Your task to perform on an android device: Go to privacy settings Image 0: 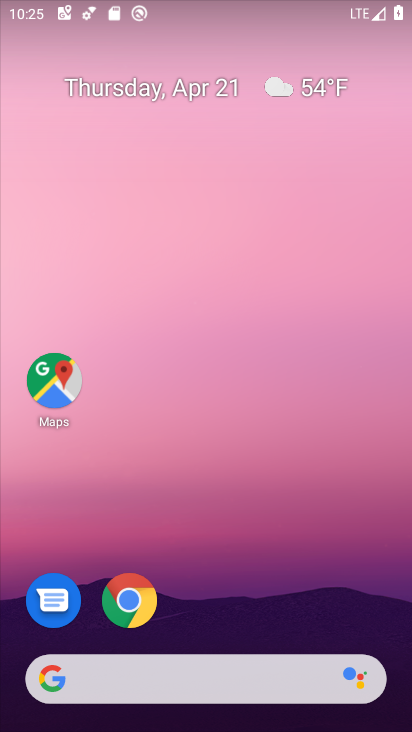
Step 0: click (135, 600)
Your task to perform on an android device: Go to privacy settings Image 1: 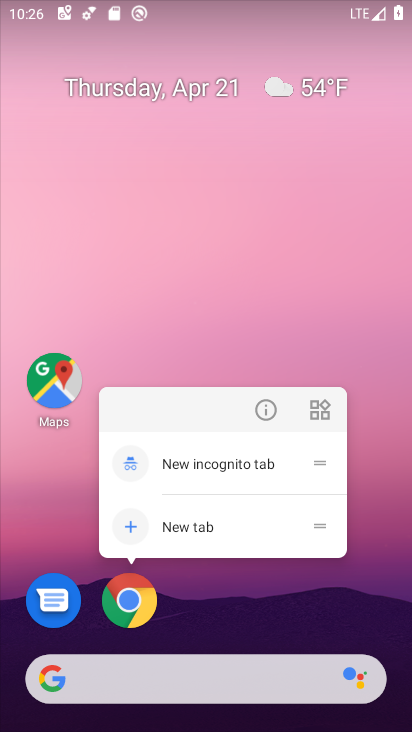
Step 1: click (140, 605)
Your task to perform on an android device: Go to privacy settings Image 2: 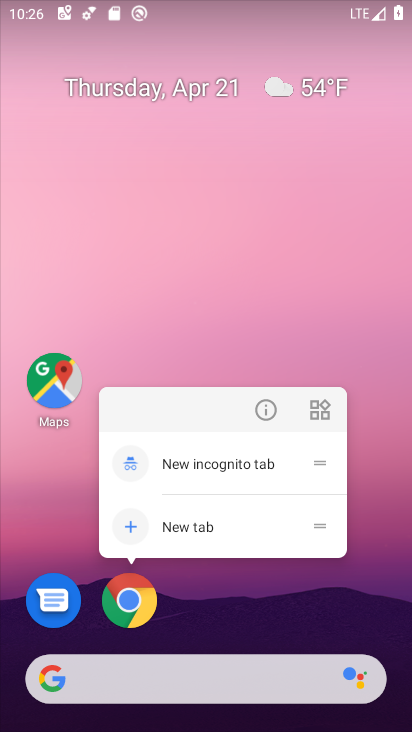
Step 2: click (115, 597)
Your task to perform on an android device: Go to privacy settings Image 3: 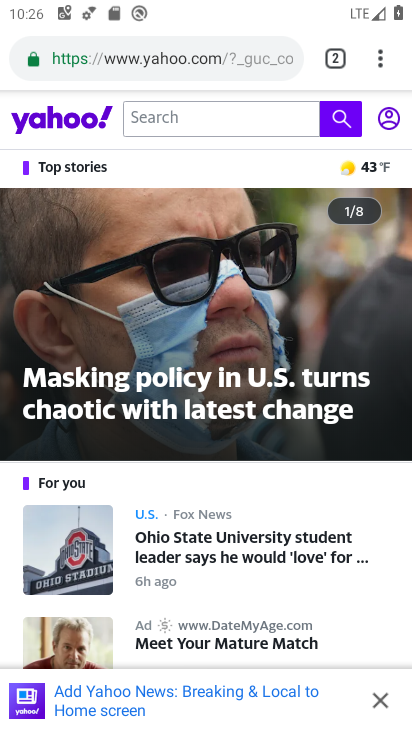
Step 3: click (379, 52)
Your task to perform on an android device: Go to privacy settings Image 4: 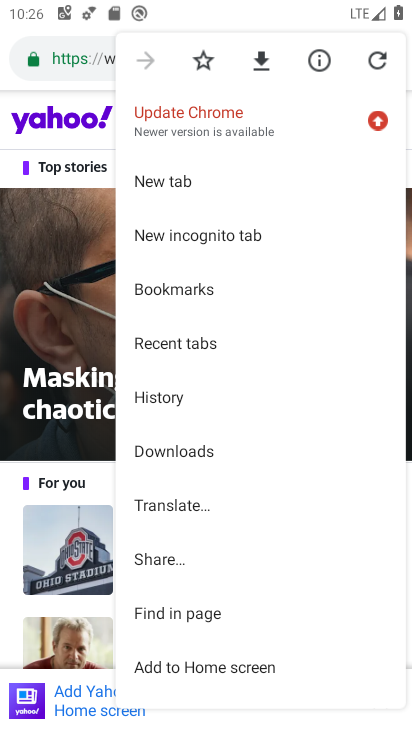
Step 4: drag from (234, 583) to (220, 183)
Your task to perform on an android device: Go to privacy settings Image 5: 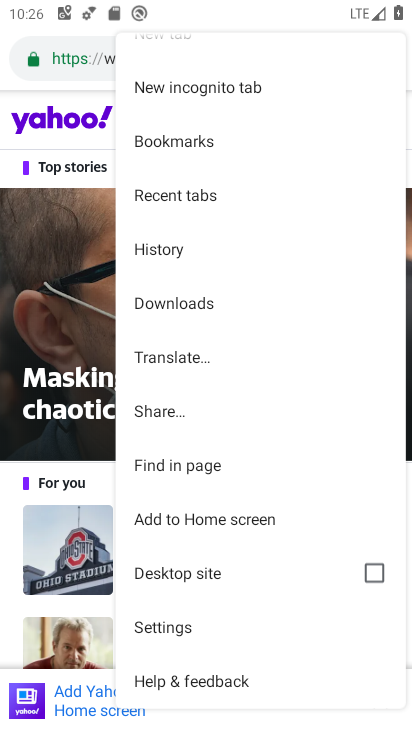
Step 5: click (223, 617)
Your task to perform on an android device: Go to privacy settings Image 6: 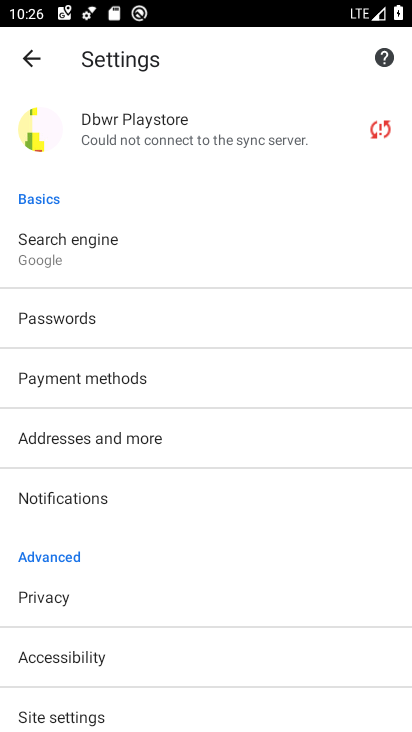
Step 6: click (162, 609)
Your task to perform on an android device: Go to privacy settings Image 7: 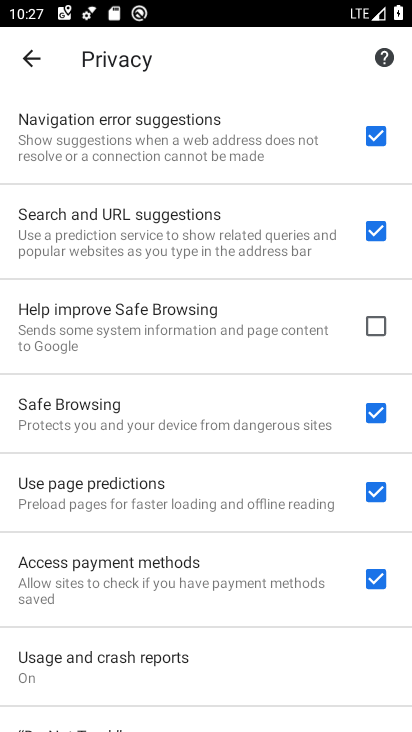
Step 7: task complete